Your task to perform on an android device: move a message to another label in the gmail app Image 0: 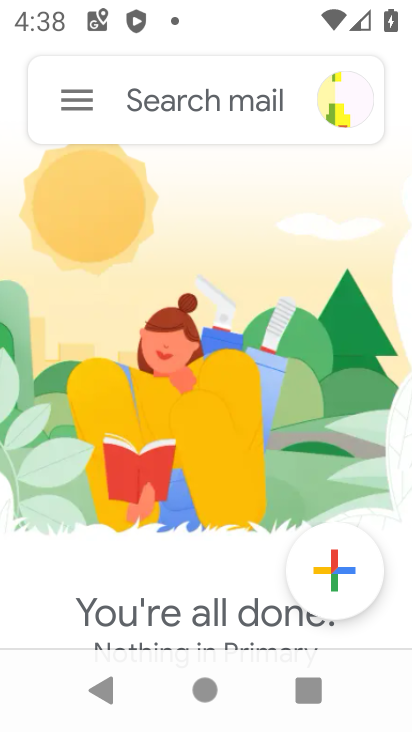
Step 0: press home button
Your task to perform on an android device: move a message to another label in the gmail app Image 1: 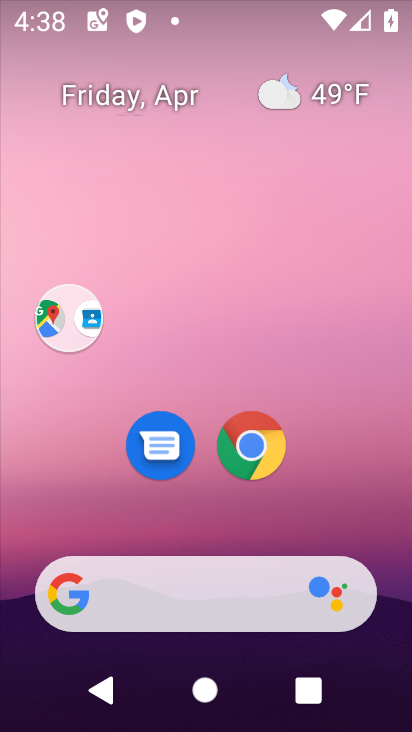
Step 1: drag from (341, 526) to (337, 161)
Your task to perform on an android device: move a message to another label in the gmail app Image 2: 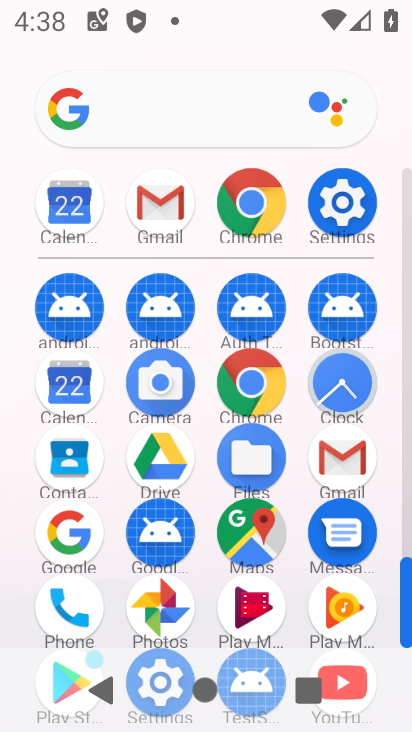
Step 2: click (326, 451)
Your task to perform on an android device: move a message to another label in the gmail app Image 3: 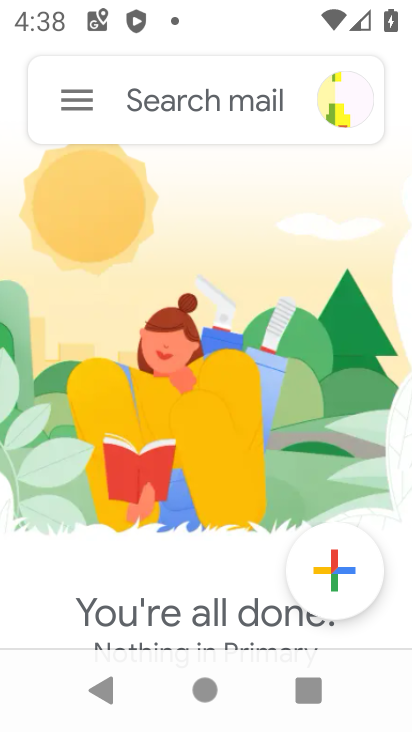
Step 3: click (81, 91)
Your task to perform on an android device: move a message to another label in the gmail app Image 4: 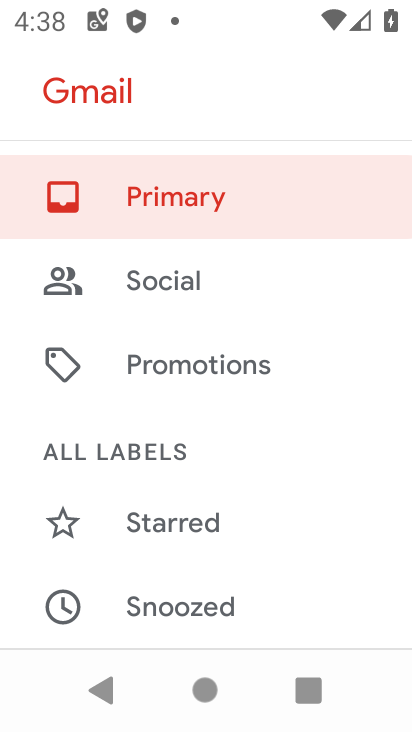
Step 4: drag from (219, 512) to (404, 286)
Your task to perform on an android device: move a message to another label in the gmail app Image 5: 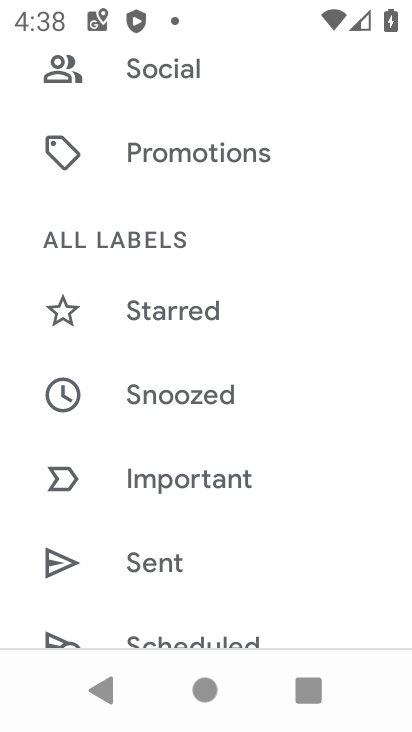
Step 5: drag from (267, 504) to (387, 269)
Your task to perform on an android device: move a message to another label in the gmail app Image 6: 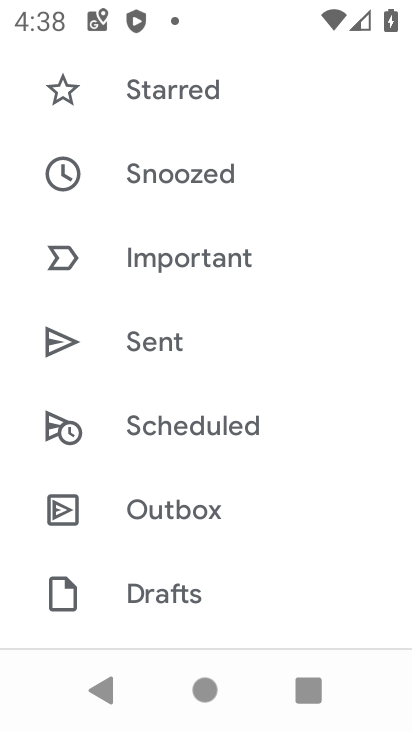
Step 6: drag from (260, 478) to (320, 235)
Your task to perform on an android device: move a message to another label in the gmail app Image 7: 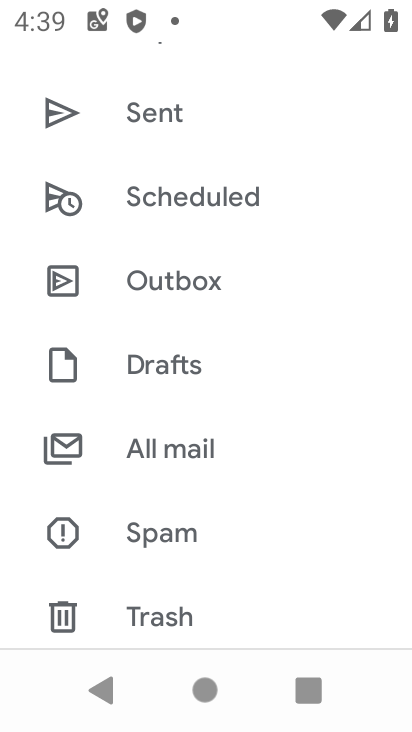
Step 7: click (151, 444)
Your task to perform on an android device: move a message to another label in the gmail app Image 8: 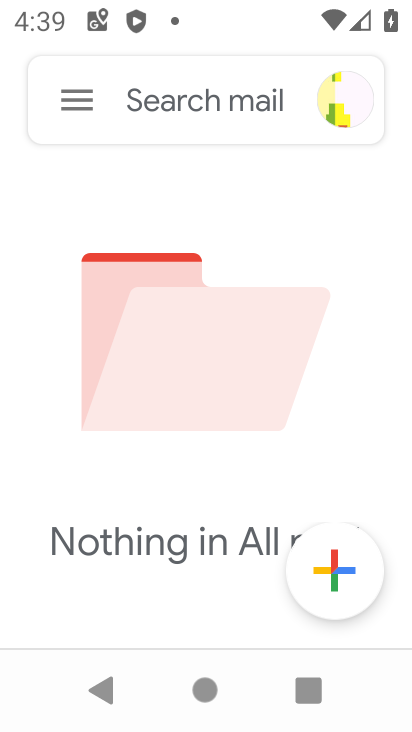
Step 8: task complete